Your task to perform on an android device: Open calendar and show me the second week of next month Image 0: 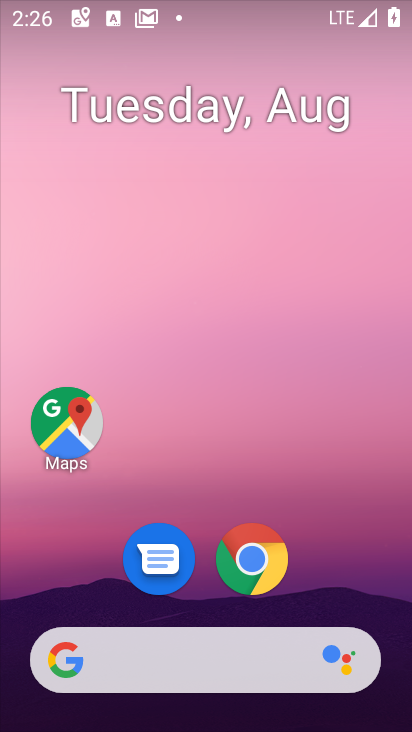
Step 0: drag from (244, 487) to (219, 109)
Your task to perform on an android device: Open calendar and show me the second week of next month Image 1: 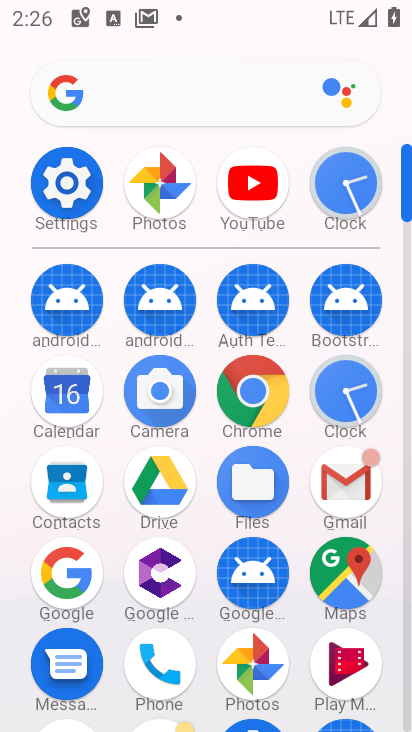
Step 1: click (65, 416)
Your task to perform on an android device: Open calendar and show me the second week of next month Image 2: 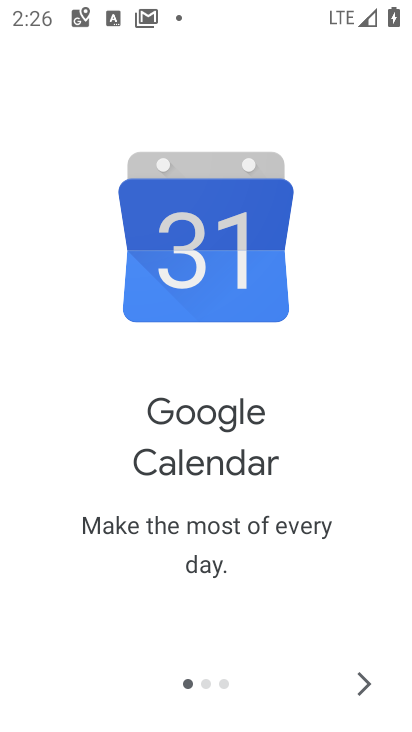
Step 2: click (350, 688)
Your task to perform on an android device: Open calendar and show me the second week of next month Image 3: 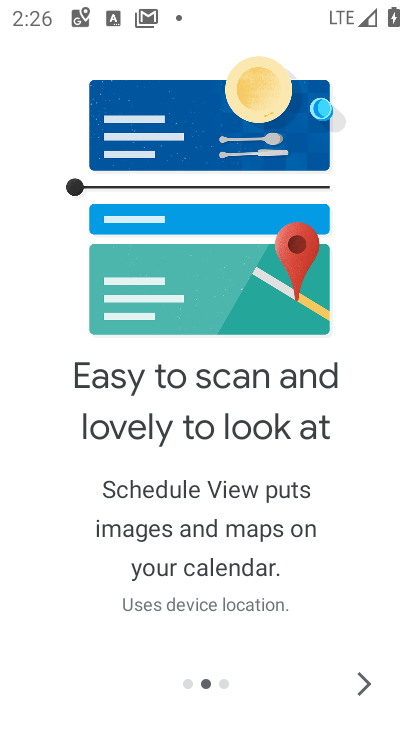
Step 3: click (351, 687)
Your task to perform on an android device: Open calendar and show me the second week of next month Image 4: 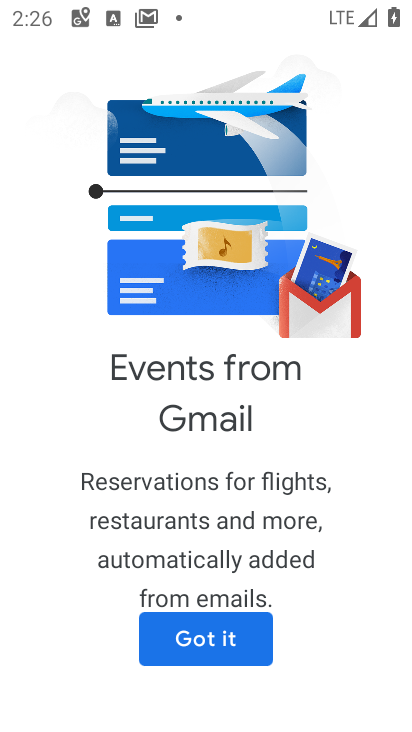
Step 4: click (244, 655)
Your task to perform on an android device: Open calendar and show me the second week of next month Image 5: 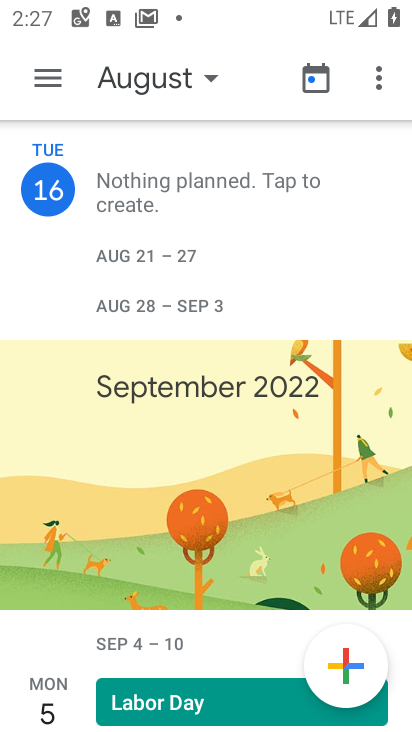
Step 5: click (195, 80)
Your task to perform on an android device: Open calendar and show me the second week of next month Image 6: 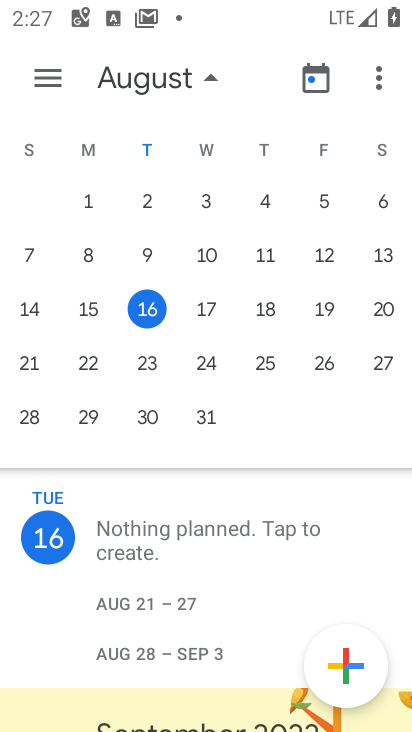
Step 6: drag from (345, 262) to (1, 123)
Your task to perform on an android device: Open calendar and show me the second week of next month Image 7: 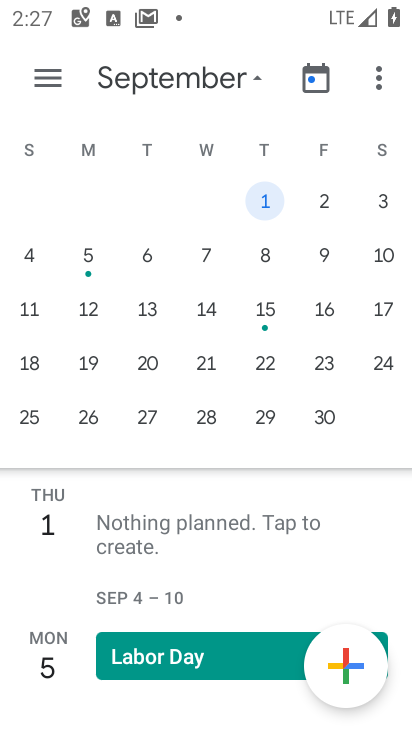
Step 7: click (12, 250)
Your task to perform on an android device: Open calendar and show me the second week of next month Image 8: 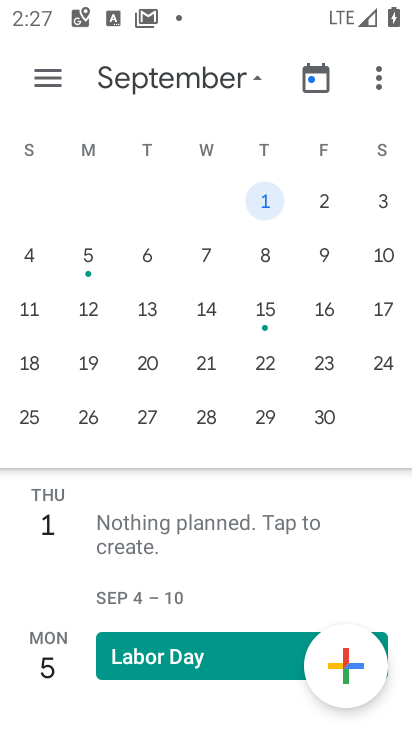
Step 8: click (36, 250)
Your task to perform on an android device: Open calendar and show me the second week of next month Image 9: 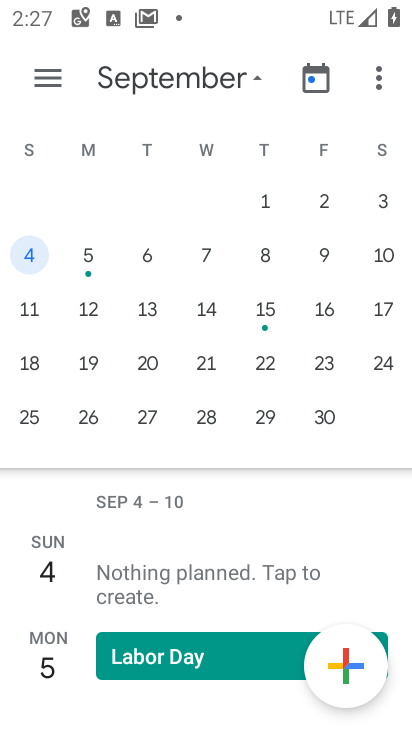
Step 9: task complete